Your task to perform on an android device: What's the weather today? Image 0: 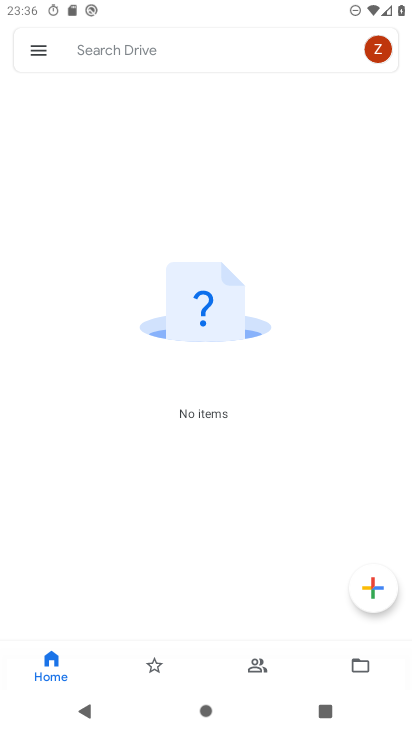
Step 0: press home button
Your task to perform on an android device: What's the weather today? Image 1: 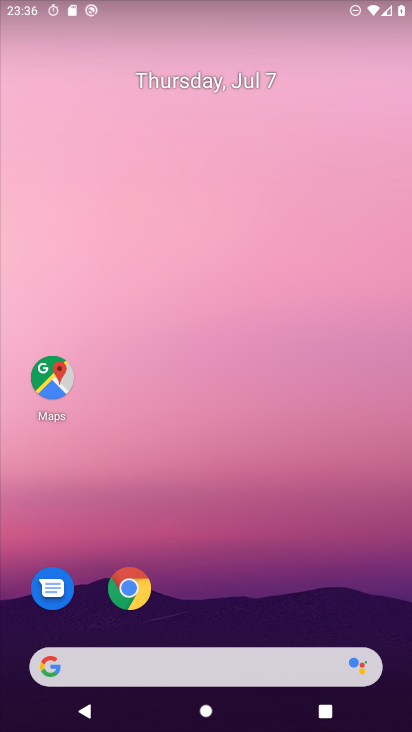
Step 1: drag from (300, 567) to (228, 105)
Your task to perform on an android device: What's the weather today? Image 2: 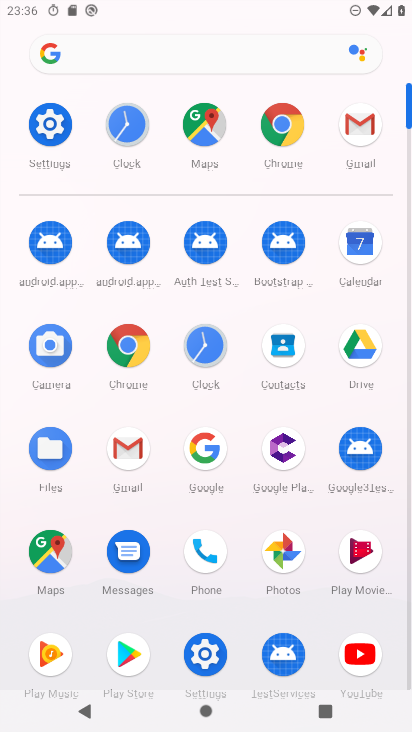
Step 2: click (277, 130)
Your task to perform on an android device: What's the weather today? Image 3: 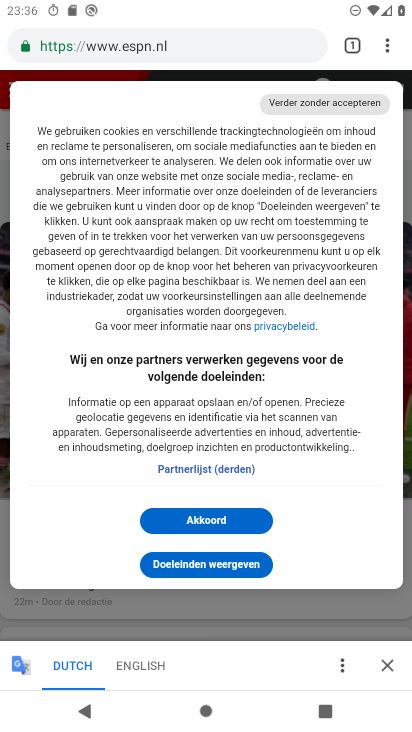
Step 3: click (97, 37)
Your task to perform on an android device: What's the weather today? Image 4: 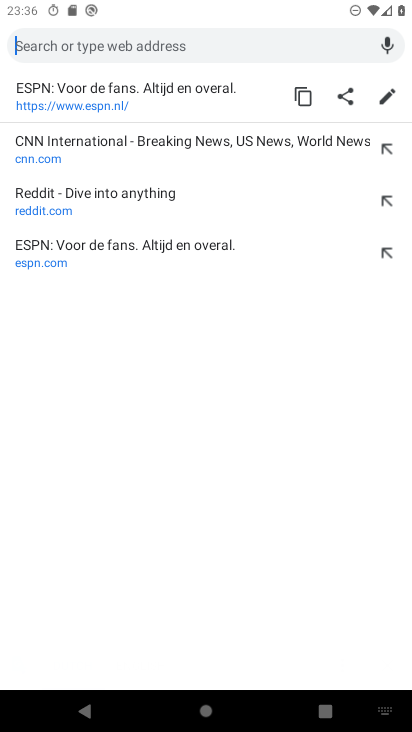
Step 4: type "weather"
Your task to perform on an android device: What's the weather today? Image 5: 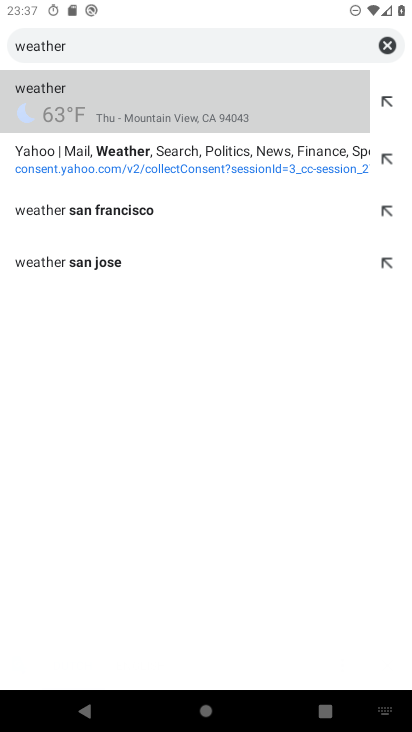
Step 5: click (67, 91)
Your task to perform on an android device: What's the weather today? Image 6: 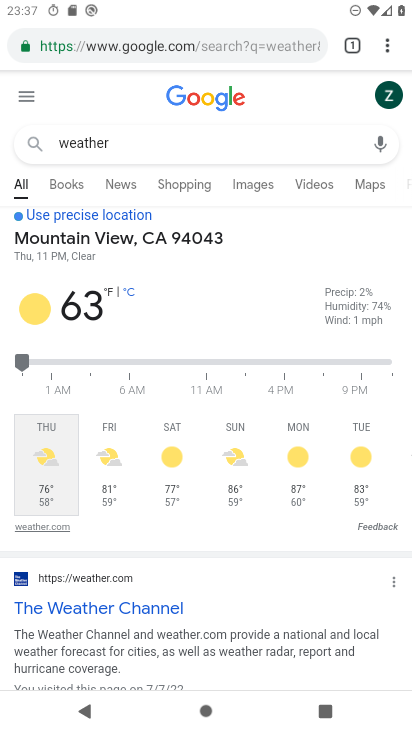
Step 6: task complete